Your task to perform on an android device: open wifi settings Image 0: 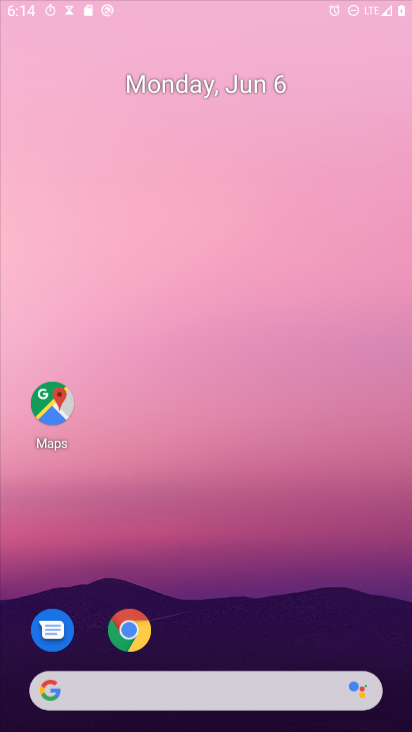
Step 0: click (228, 2)
Your task to perform on an android device: open wifi settings Image 1: 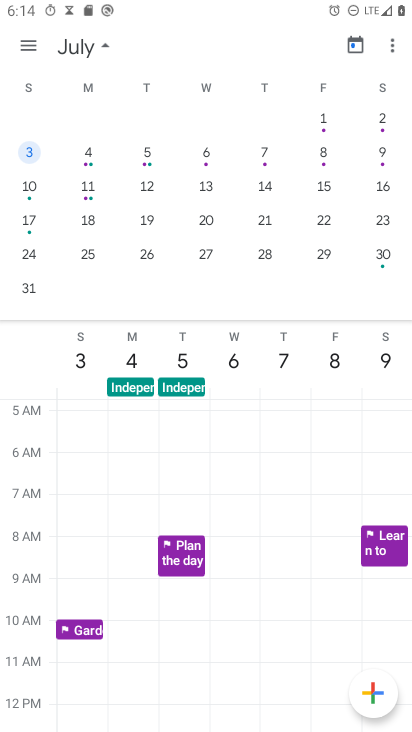
Step 1: press home button
Your task to perform on an android device: open wifi settings Image 2: 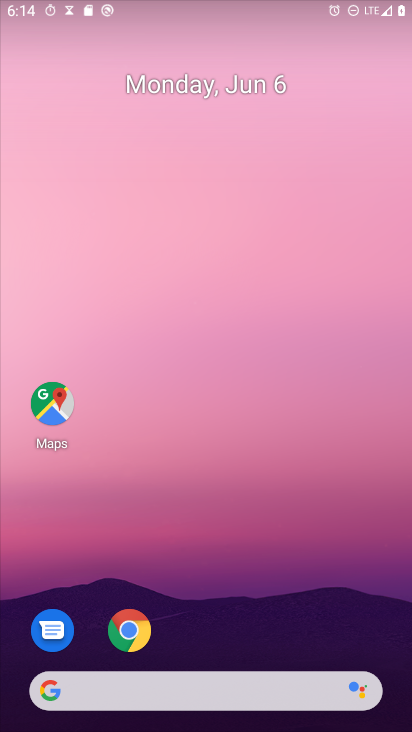
Step 2: drag from (313, 640) to (166, 64)
Your task to perform on an android device: open wifi settings Image 3: 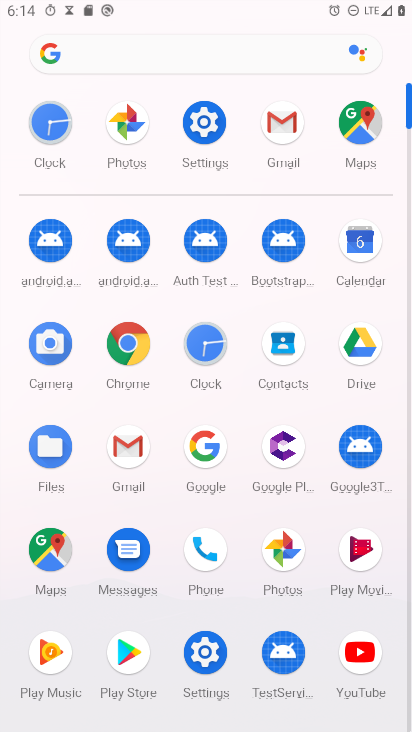
Step 3: click (200, 111)
Your task to perform on an android device: open wifi settings Image 4: 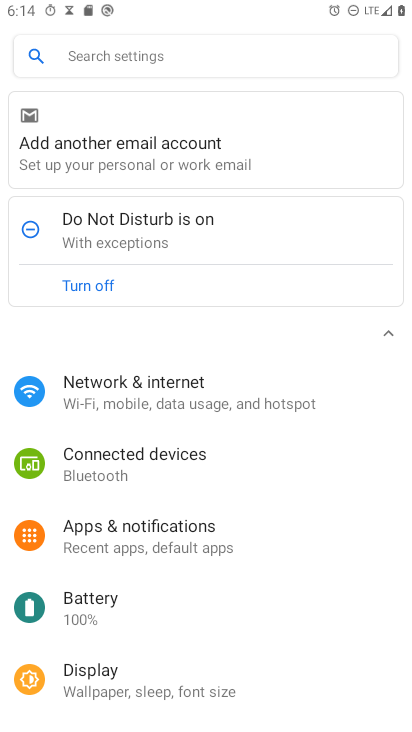
Step 4: click (190, 391)
Your task to perform on an android device: open wifi settings Image 5: 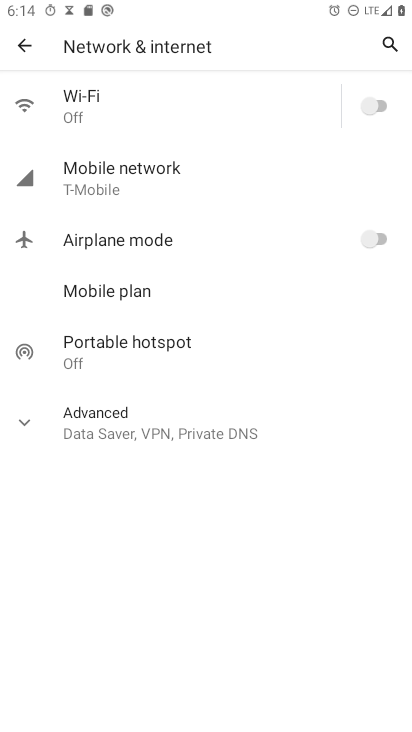
Step 5: task complete